Your task to perform on an android device: Check the weather Image 0: 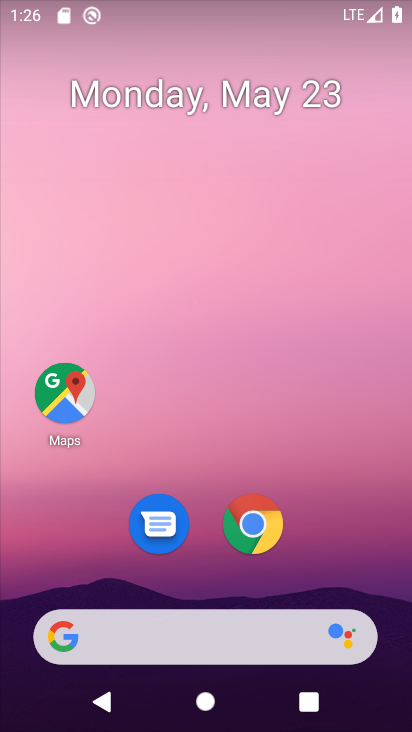
Step 0: click (192, 624)
Your task to perform on an android device: Check the weather Image 1: 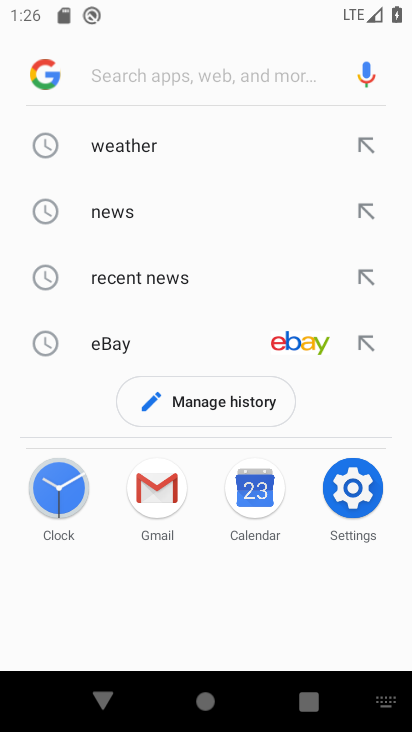
Step 1: click (118, 143)
Your task to perform on an android device: Check the weather Image 2: 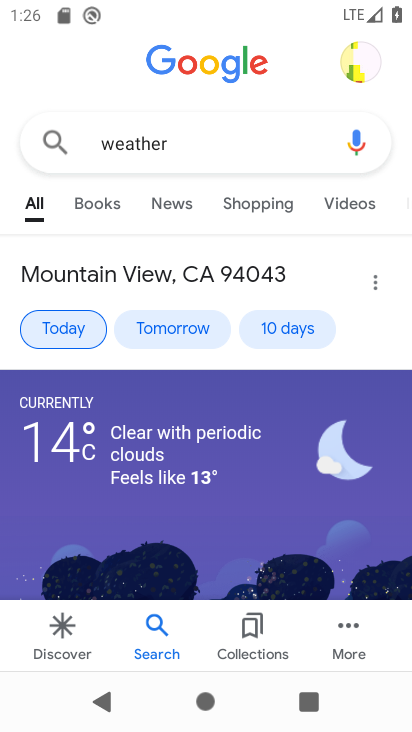
Step 2: click (71, 331)
Your task to perform on an android device: Check the weather Image 3: 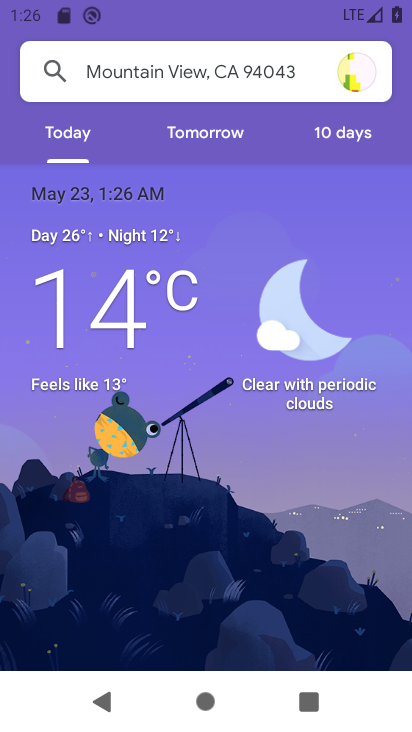
Step 3: task complete